Your task to perform on an android device: allow notifications from all sites in the chrome app Image 0: 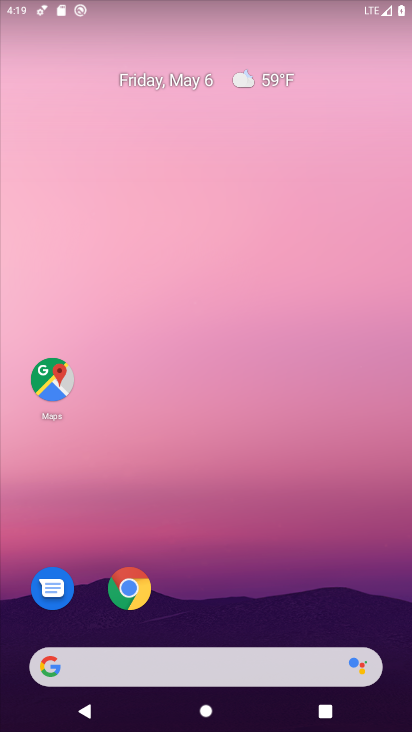
Step 0: click (130, 597)
Your task to perform on an android device: allow notifications from all sites in the chrome app Image 1: 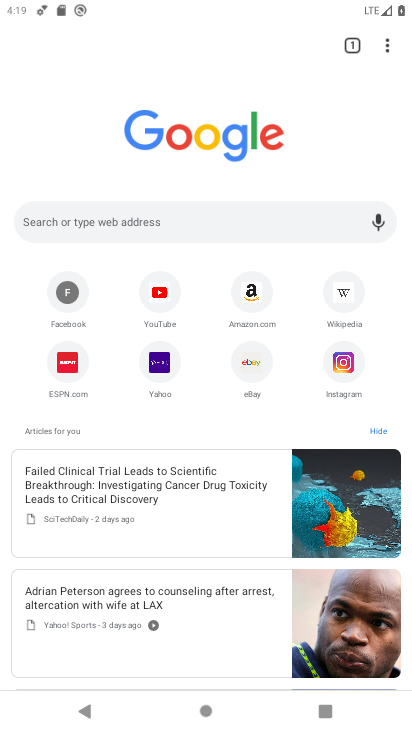
Step 1: click (387, 50)
Your task to perform on an android device: allow notifications from all sites in the chrome app Image 2: 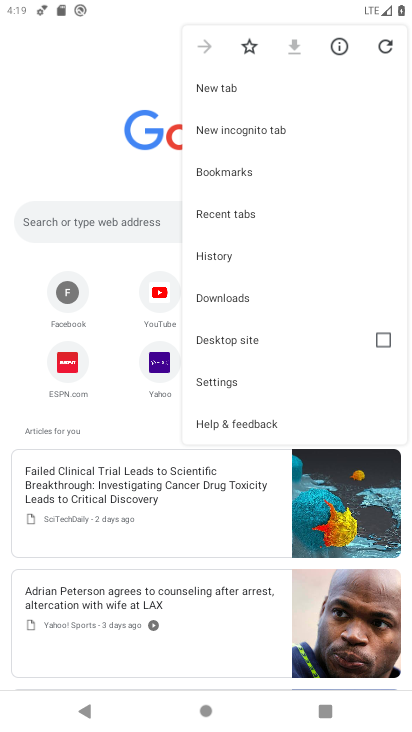
Step 2: click (225, 380)
Your task to perform on an android device: allow notifications from all sites in the chrome app Image 3: 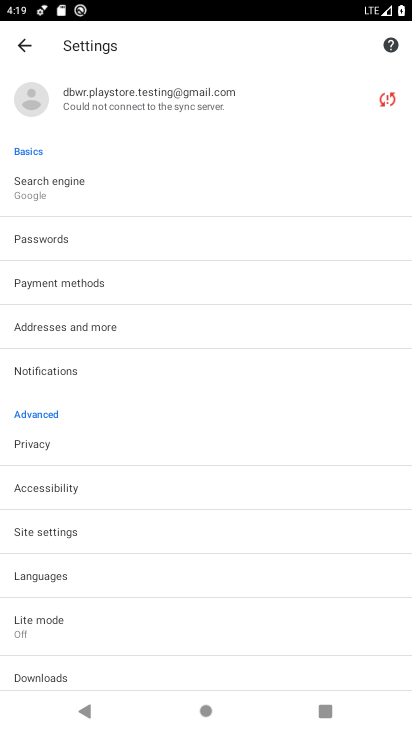
Step 3: drag from (89, 633) to (88, 414)
Your task to perform on an android device: allow notifications from all sites in the chrome app Image 4: 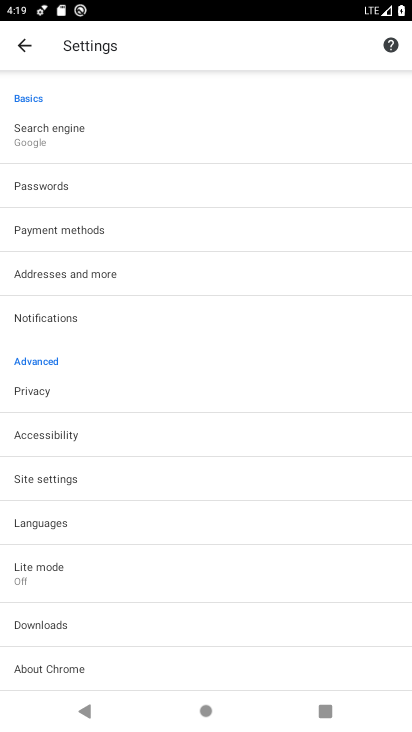
Step 4: click (62, 475)
Your task to perform on an android device: allow notifications from all sites in the chrome app Image 5: 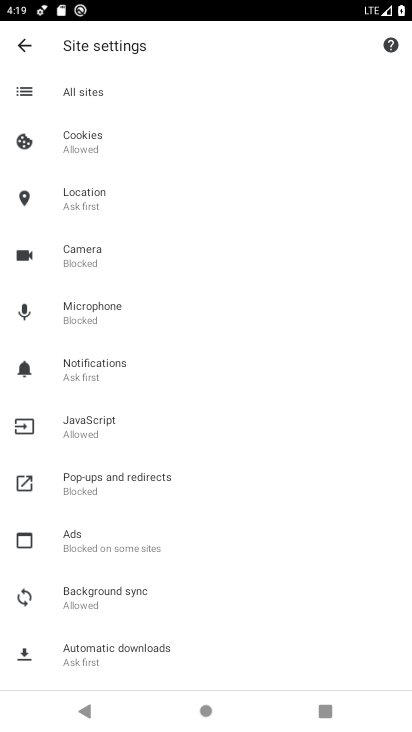
Step 5: click (90, 361)
Your task to perform on an android device: allow notifications from all sites in the chrome app Image 6: 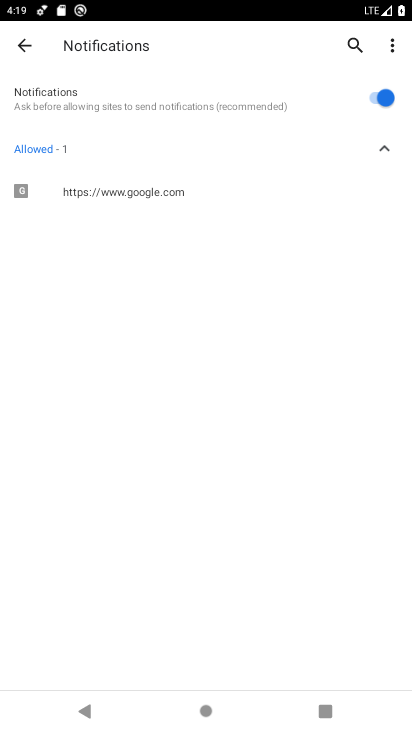
Step 6: task complete